Your task to perform on an android device: Search for macbook air on ebay, select the first entry, add it to the cart, then select checkout. Image 0: 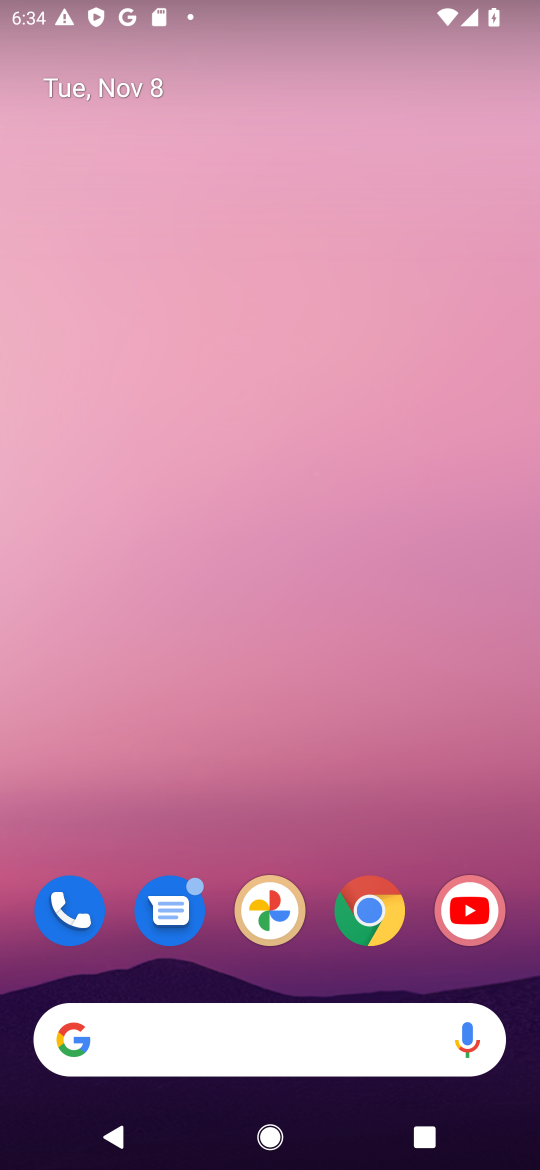
Step 0: click (371, 899)
Your task to perform on an android device: Search for macbook air on ebay, select the first entry, add it to the cart, then select checkout. Image 1: 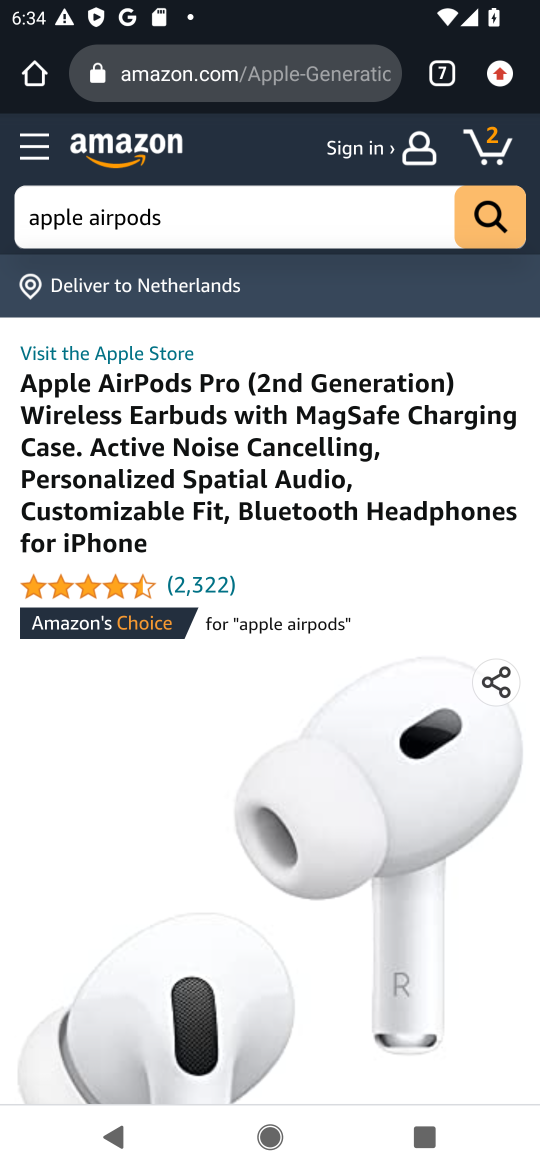
Step 1: click (444, 72)
Your task to perform on an android device: Search for macbook air on ebay, select the first entry, add it to the cart, then select checkout. Image 2: 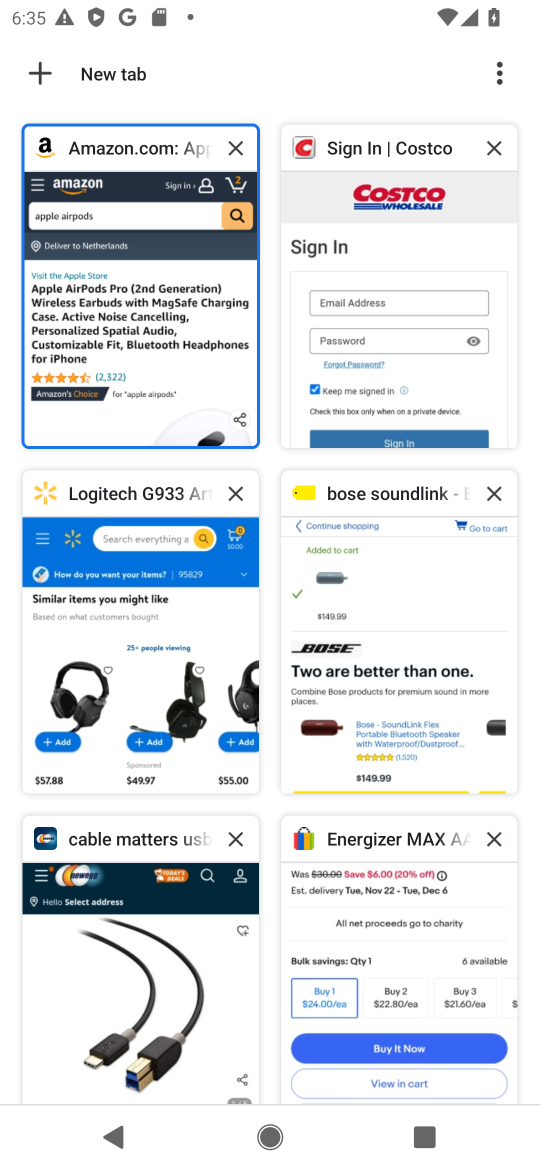
Step 2: click (309, 922)
Your task to perform on an android device: Search for macbook air on ebay, select the first entry, add it to the cart, then select checkout. Image 3: 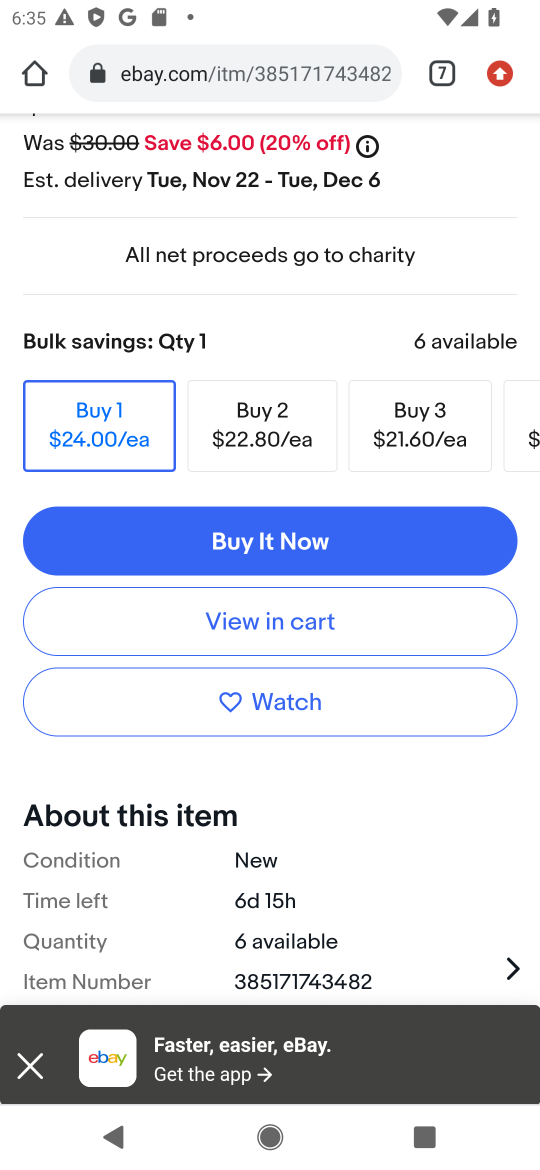
Step 3: drag from (471, 218) to (299, 918)
Your task to perform on an android device: Search for macbook air on ebay, select the first entry, add it to the cart, then select checkout. Image 4: 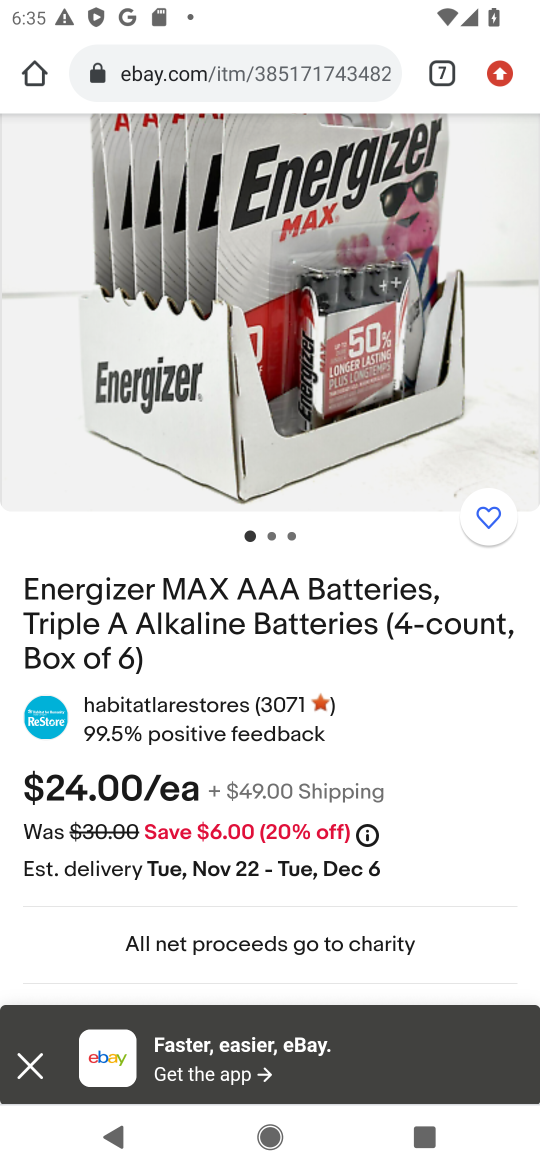
Step 4: drag from (500, 187) to (390, 1053)
Your task to perform on an android device: Search for macbook air on ebay, select the first entry, add it to the cart, then select checkout. Image 5: 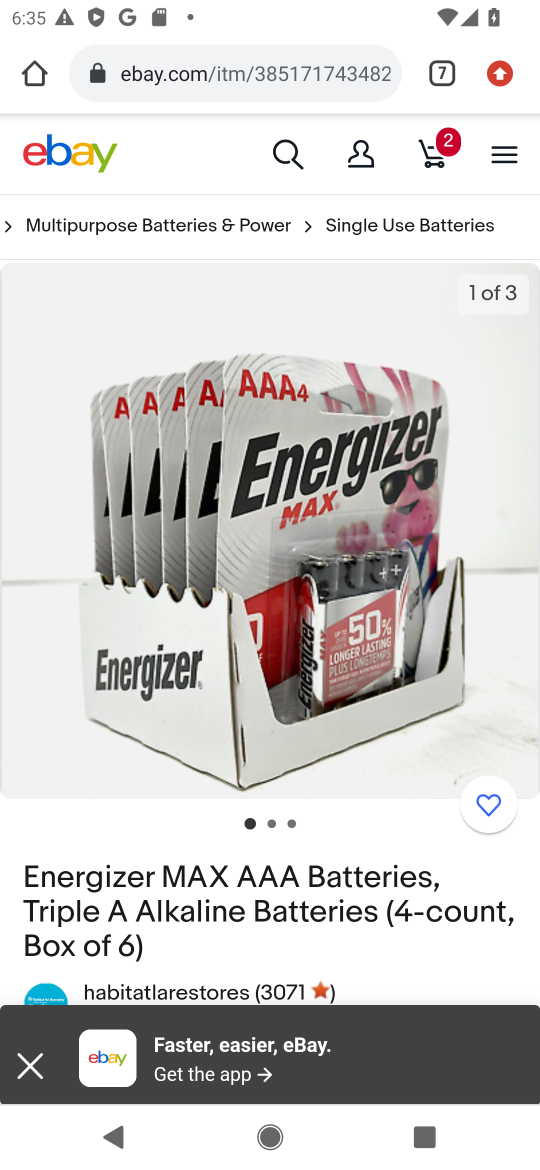
Step 5: click (279, 148)
Your task to perform on an android device: Search for macbook air on ebay, select the first entry, add it to the cart, then select checkout. Image 6: 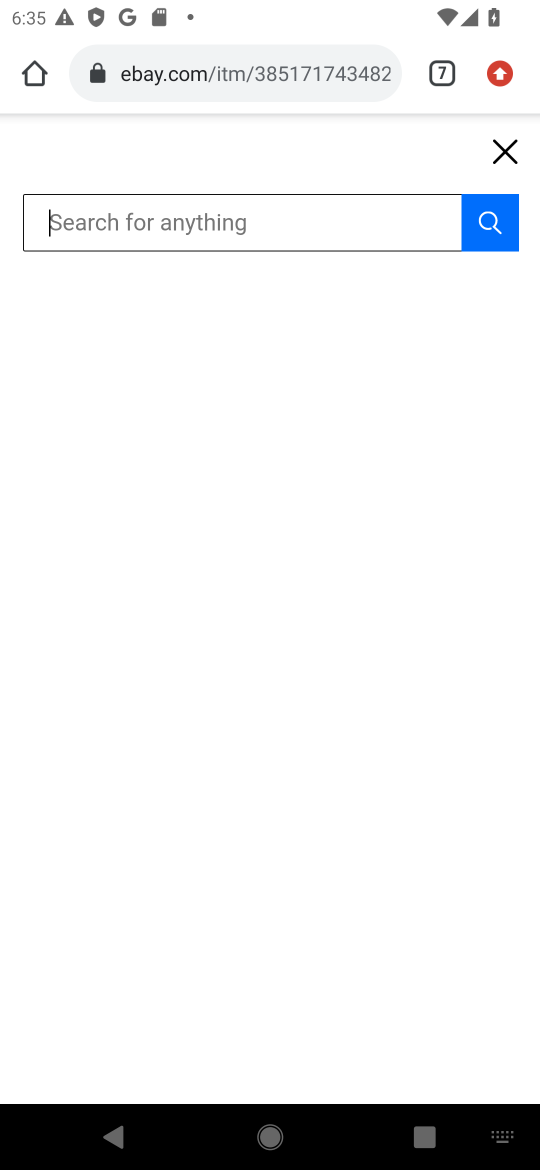
Step 6: type "macbook air"
Your task to perform on an android device: Search for macbook air on ebay, select the first entry, add it to the cart, then select checkout. Image 7: 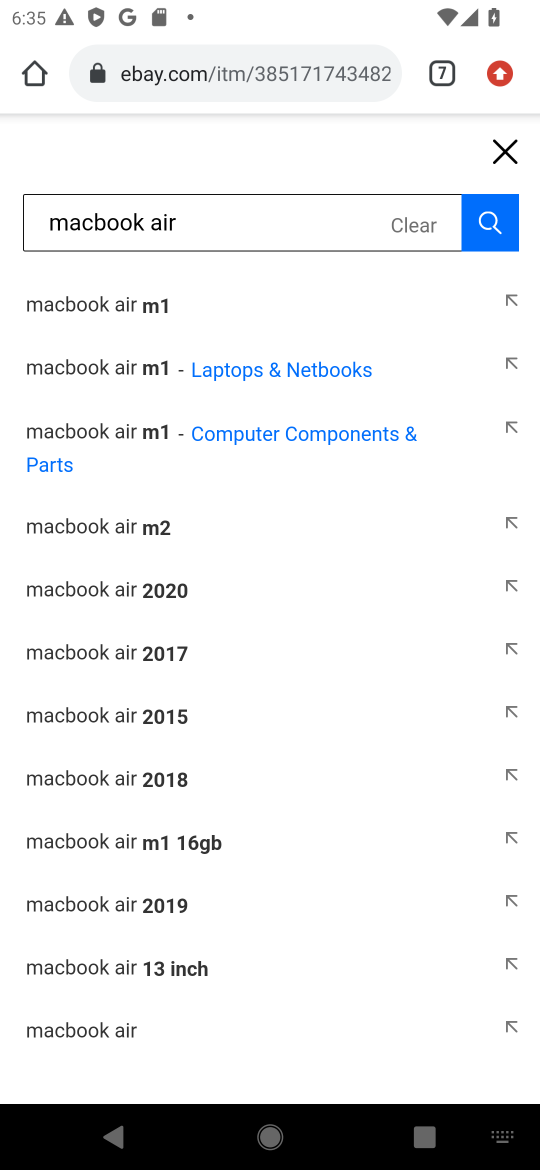
Step 7: click (136, 369)
Your task to perform on an android device: Search for macbook air on ebay, select the first entry, add it to the cart, then select checkout. Image 8: 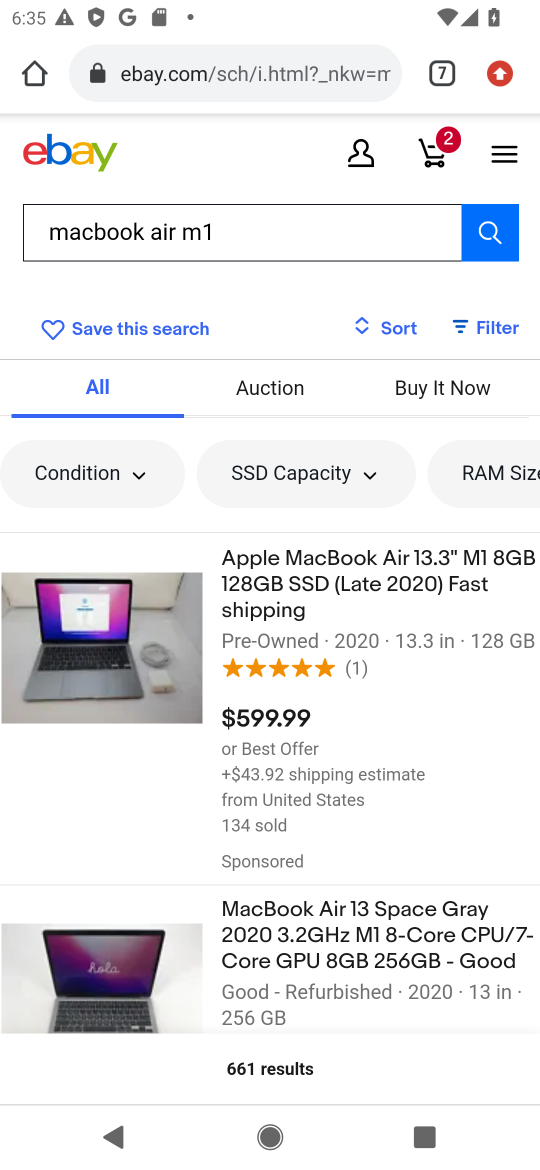
Step 8: click (312, 586)
Your task to perform on an android device: Search for macbook air on ebay, select the first entry, add it to the cart, then select checkout. Image 9: 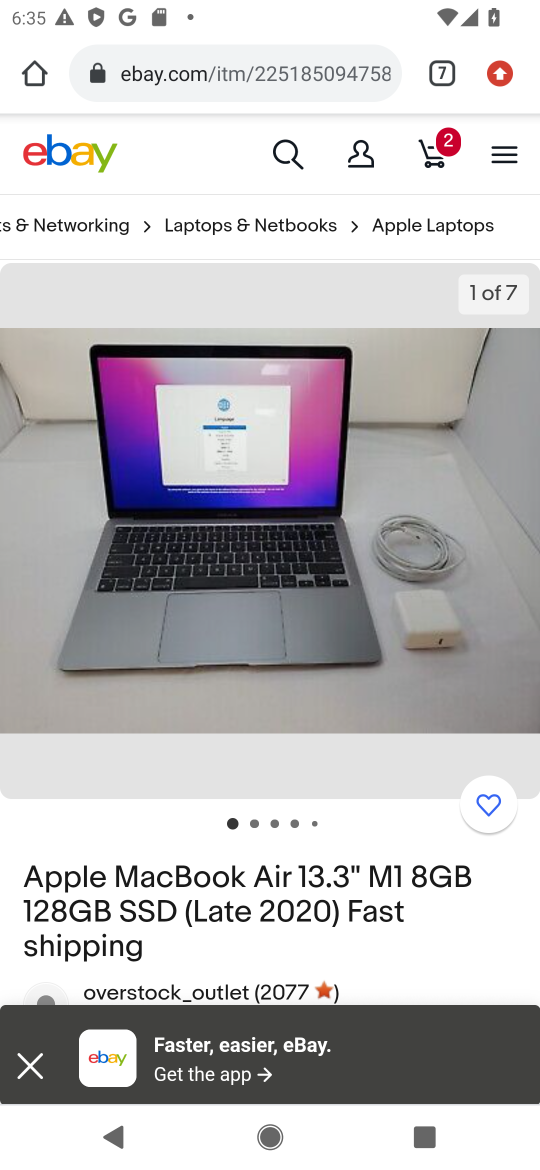
Step 9: drag from (372, 975) to (458, 343)
Your task to perform on an android device: Search for macbook air on ebay, select the first entry, add it to the cart, then select checkout. Image 10: 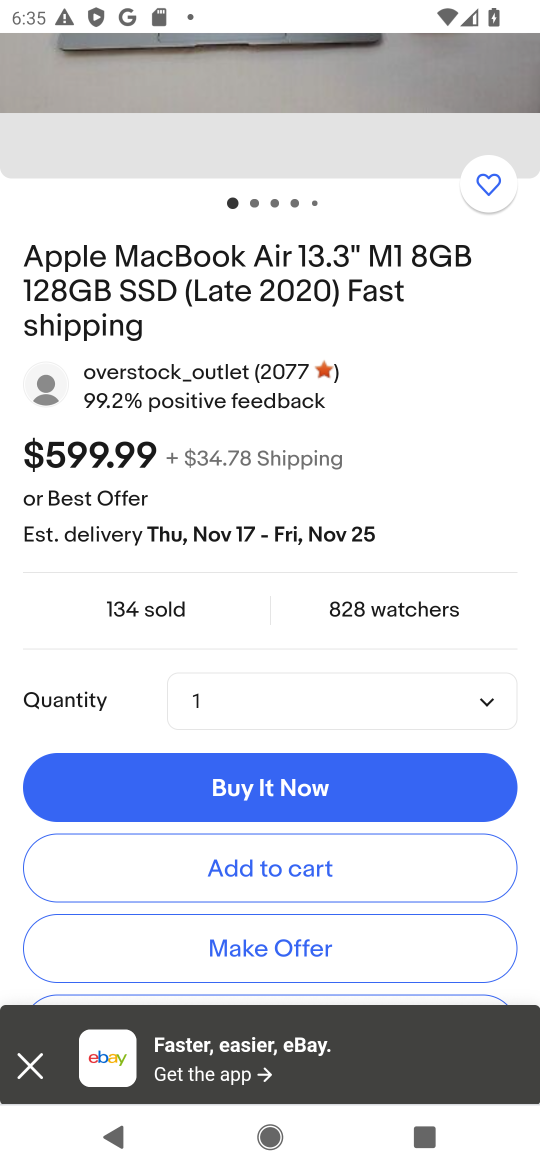
Step 10: click (25, 1068)
Your task to perform on an android device: Search for macbook air on ebay, select the first entry, add it to the cart, then select checkout. Image 11: 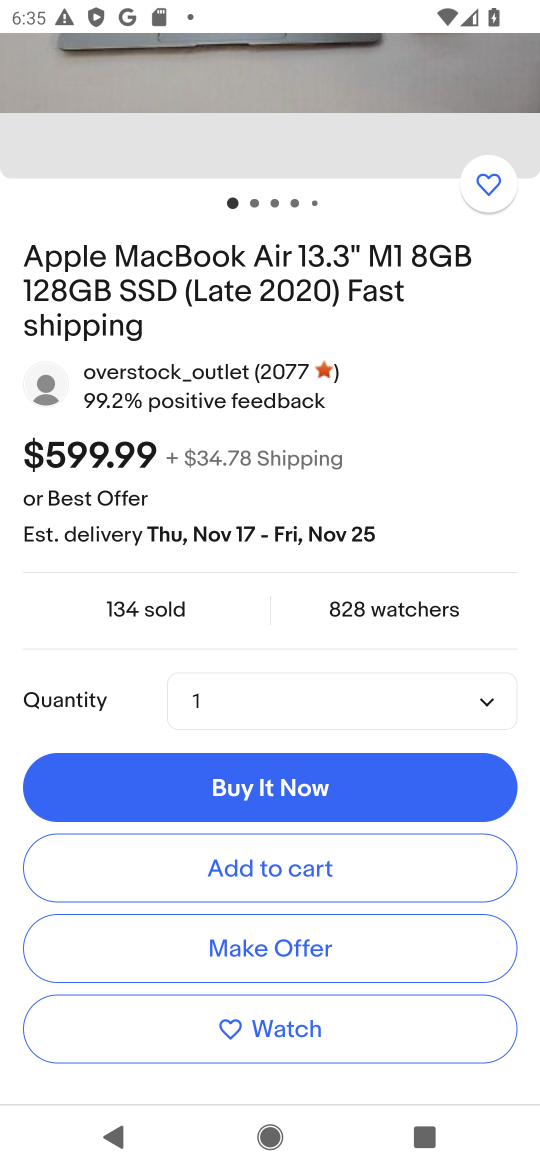
Step 11: click (199, 873)
Your task to perform on an android device: Search for macbook air on ebay, select the first entry, add it to the cart, then select checkout. Image 12: 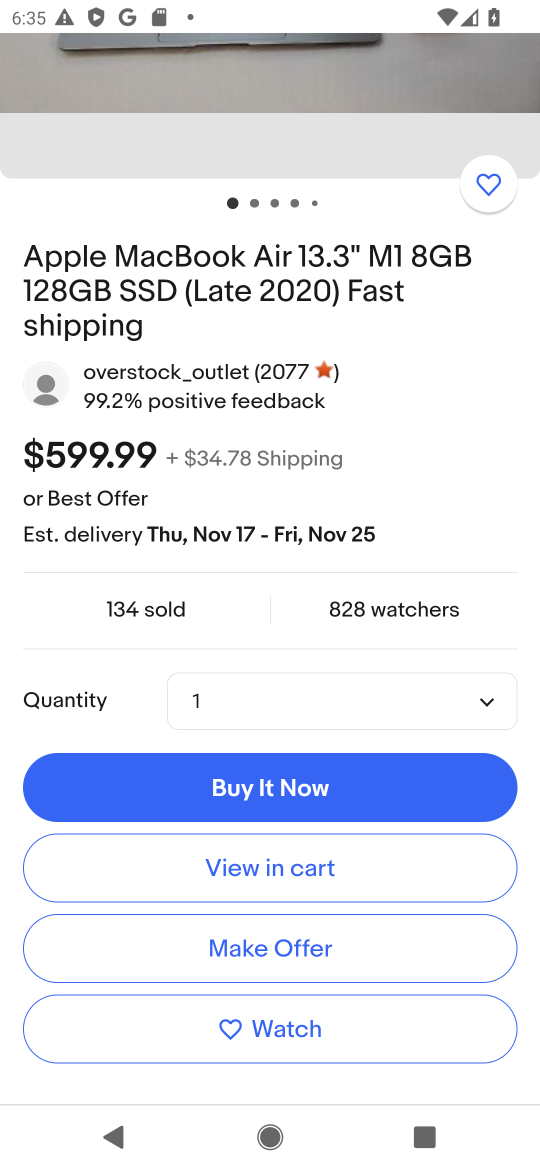
Step 12: click (275, 870)
Your task to perform on an android device: Search for macbook air on ebay, select the first entry, add it to the cart, then select checkout. Image 13: 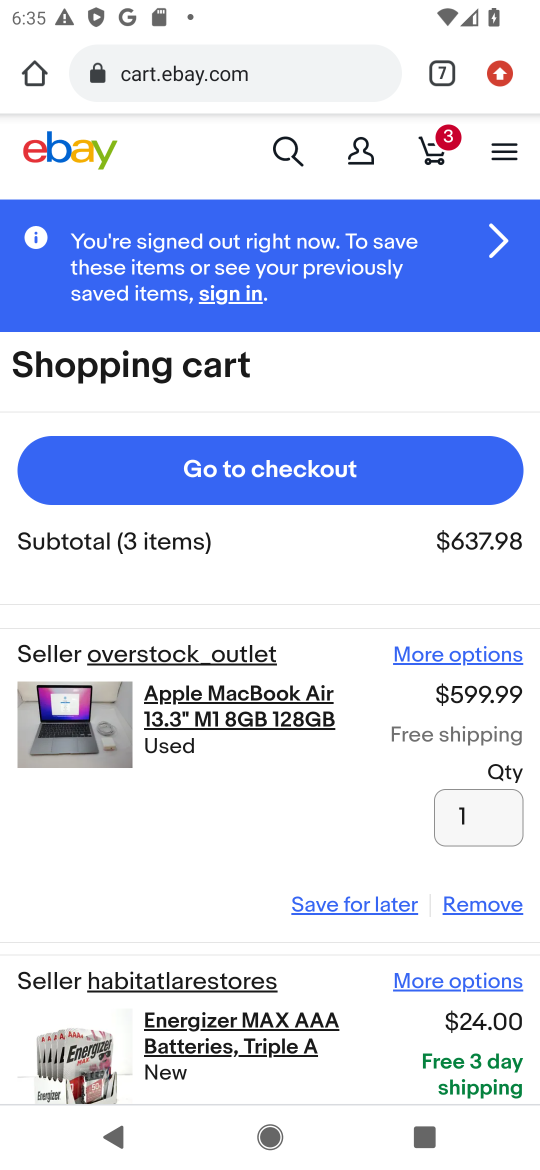
Step 13: click (337, 470)
Your task to perform on an android device: Search for macbook air on ebay, select the first entry, add it to the cart, then select checkout. Image 14: 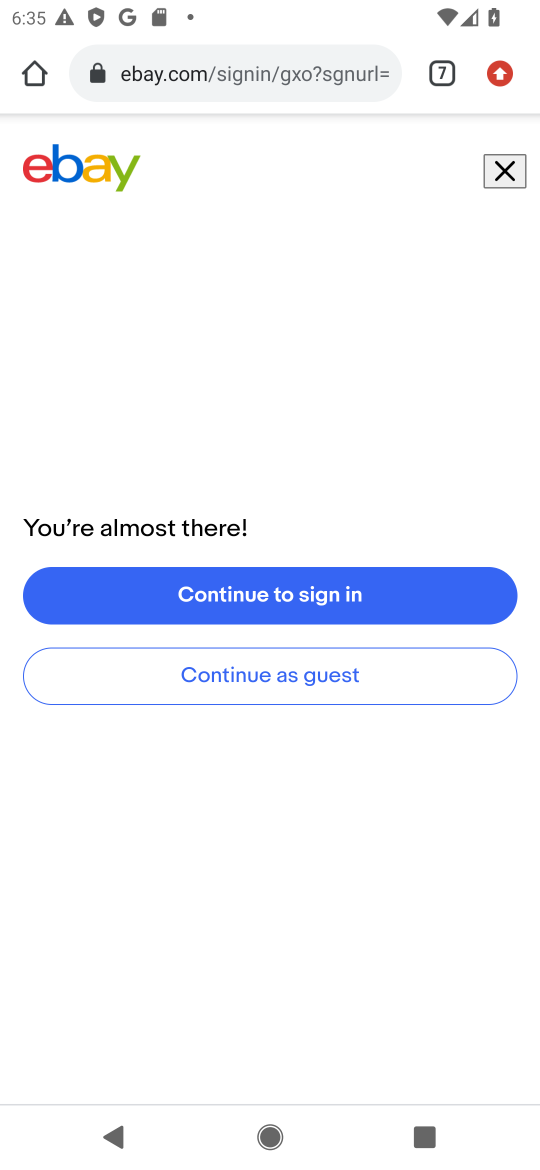
Step 14: task complete